Your task to perform on an android device: Search for pizza restaurants on Maps Image 0: 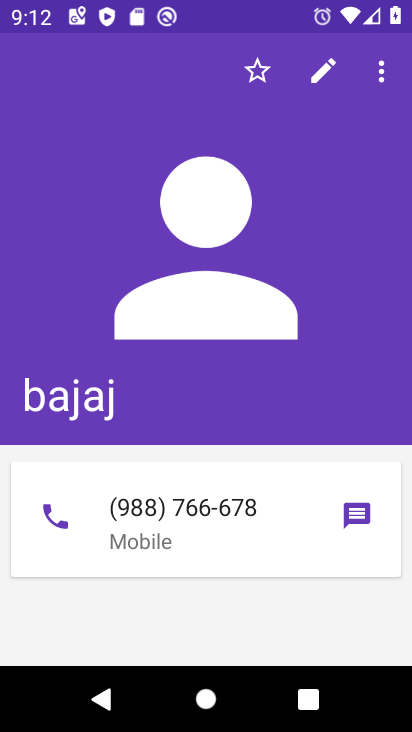
Step 0: press home button
Your task to perform on an android device: Search for pizza restaurants on Maps Image 1: 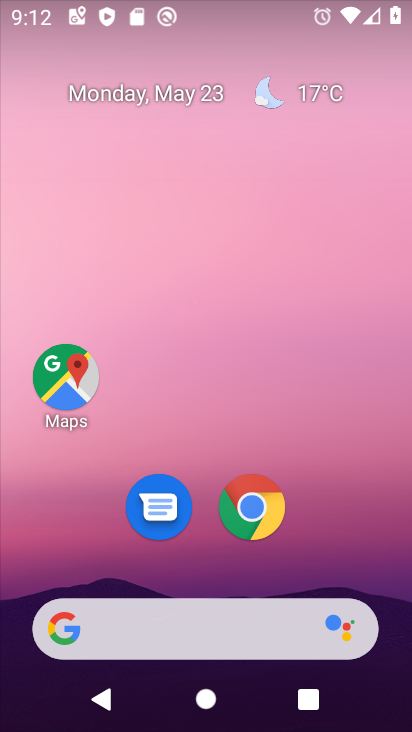
Step 1: click (64, 373)
Your task to perform on an android device: Search for pizza restaurants on Maps Image 2: 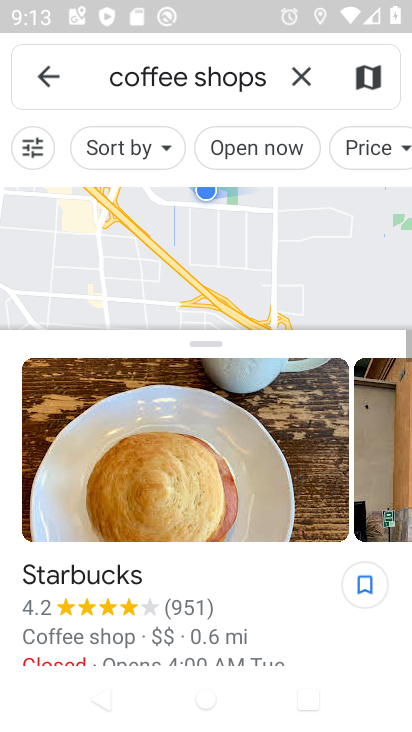
Step 2: click (295, 77)
Your task to perform on an android device: Search for pizza restaurants on Maps Image 3: 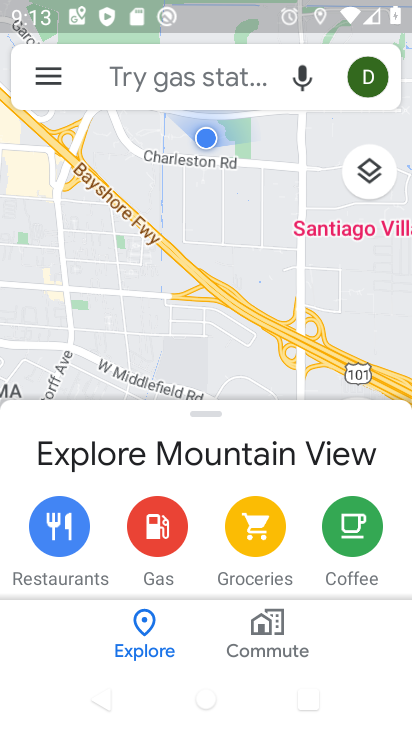
Step 3: click (114, 73)
Your task to perform on an android device: Search for pizza restaurants on Maps Image 4: 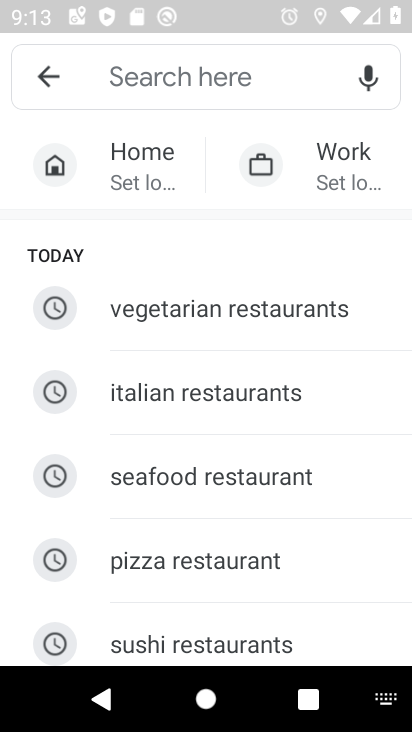
Step 4: type "pizza restaurant "
Your task to perform on an android device: Search for pizza restaurants on Maps Image 5: 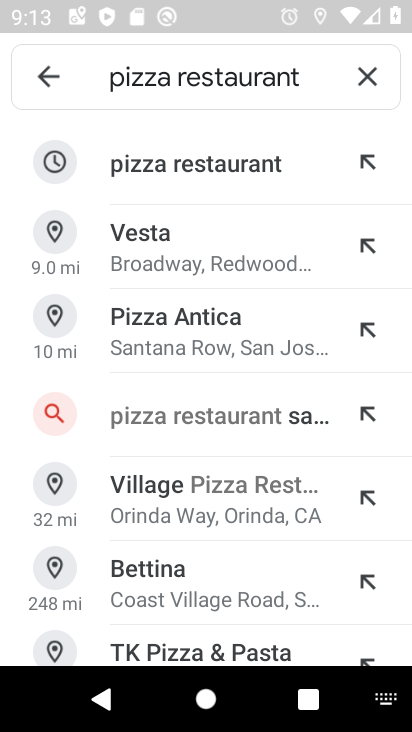
Step 5: click (147, 170)
Your task to perform on an android device: Search for pizza restaurants on Maps Image 6: 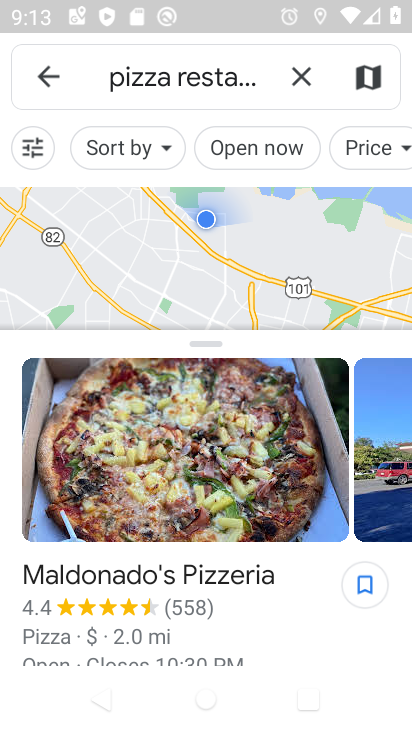
Step 6: task complete